Your task to perform on an android device: Go to location settings Image 0: 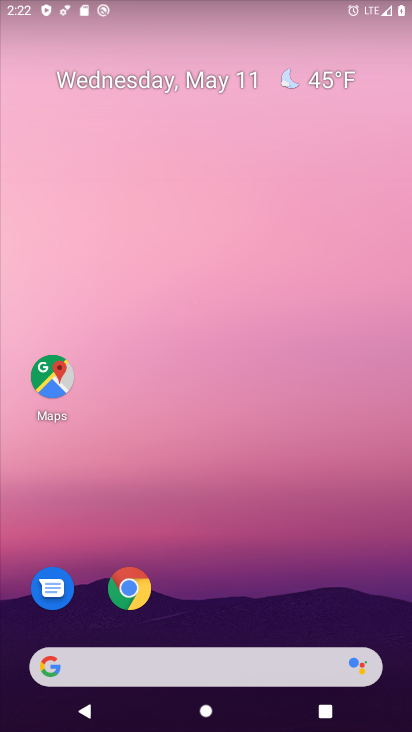
Step 0: drag from (235, 586) to (243, 104)
Your task to perform on an android device: Go to location settings Image 1: 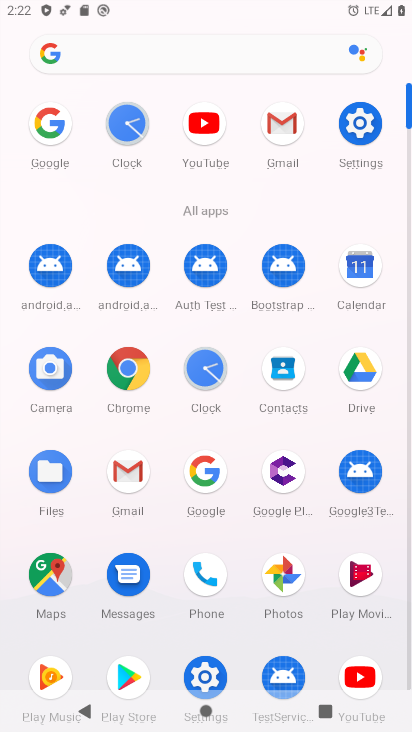
Step 1: click (354, 109)
Your task to perform on an android device: Go to location settings Image 2: 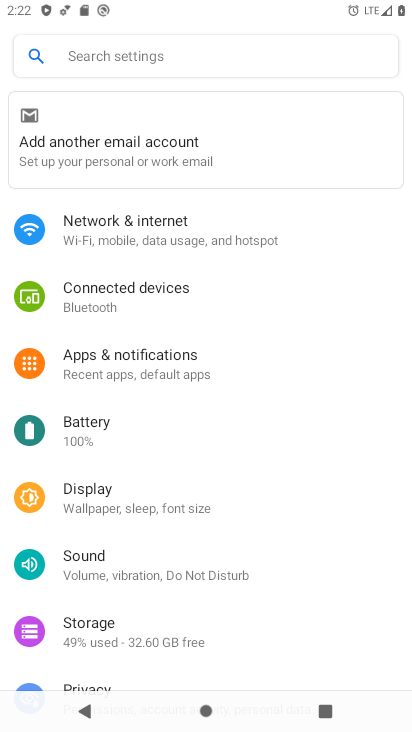
Step 2: drag from (175, 583) to (272, 268)
Your task to perform on an android device: Go to location settings Image 3: 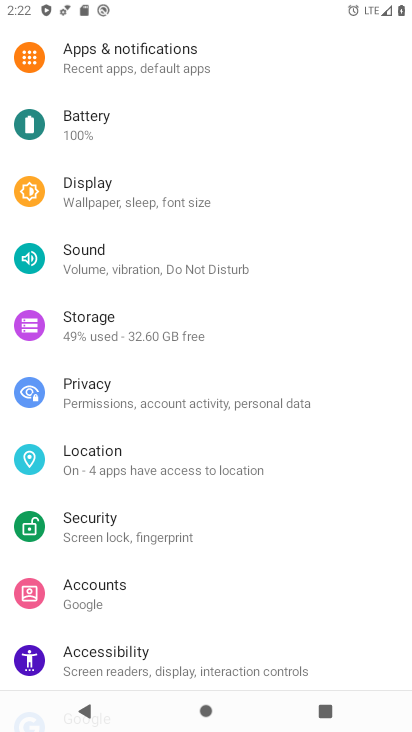
Step 3: click (151, 467)
Your task to perform on an android device: Go to location settings Image 4: 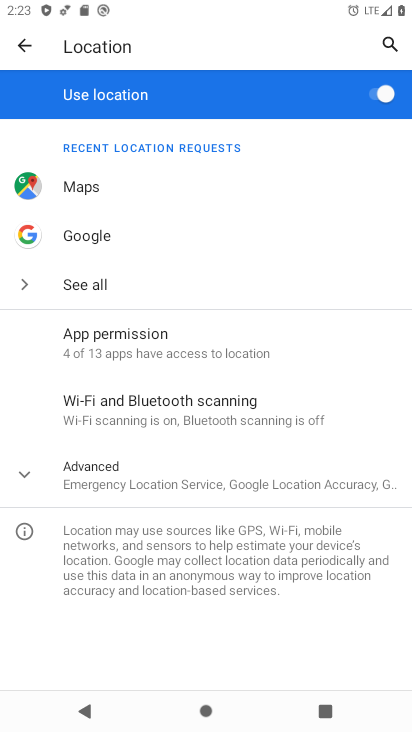
Step 4: task complete